Your task to perform on an android device: Show the shopping cart on costco.com. Search for razer kraken on costco.com, select the first entry, and add it to the cart. Image 0: 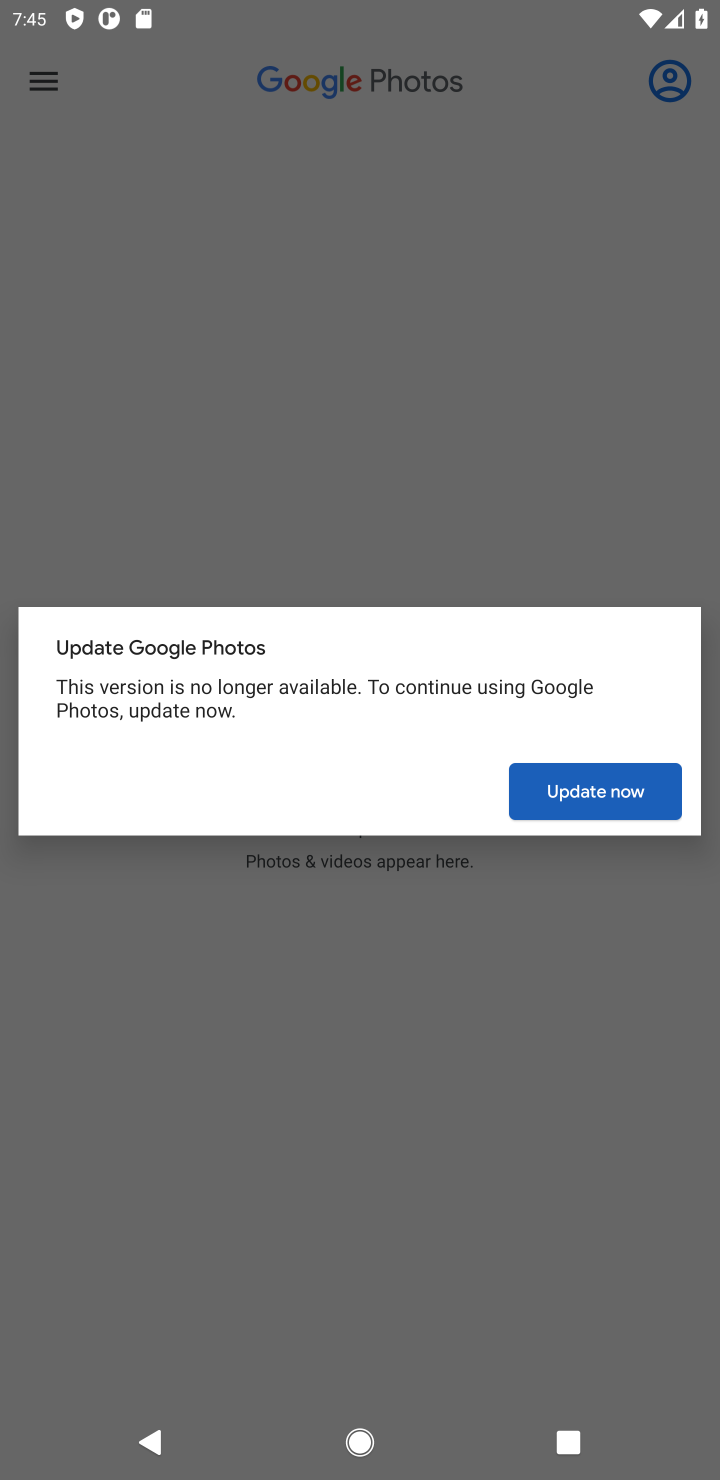
Step 0: press home button
Your task to perform on an android device: Show the shopping cart on costco.com. Search for razer kraken on costco.com, select the first entry, and add it to the cart. Image 1: 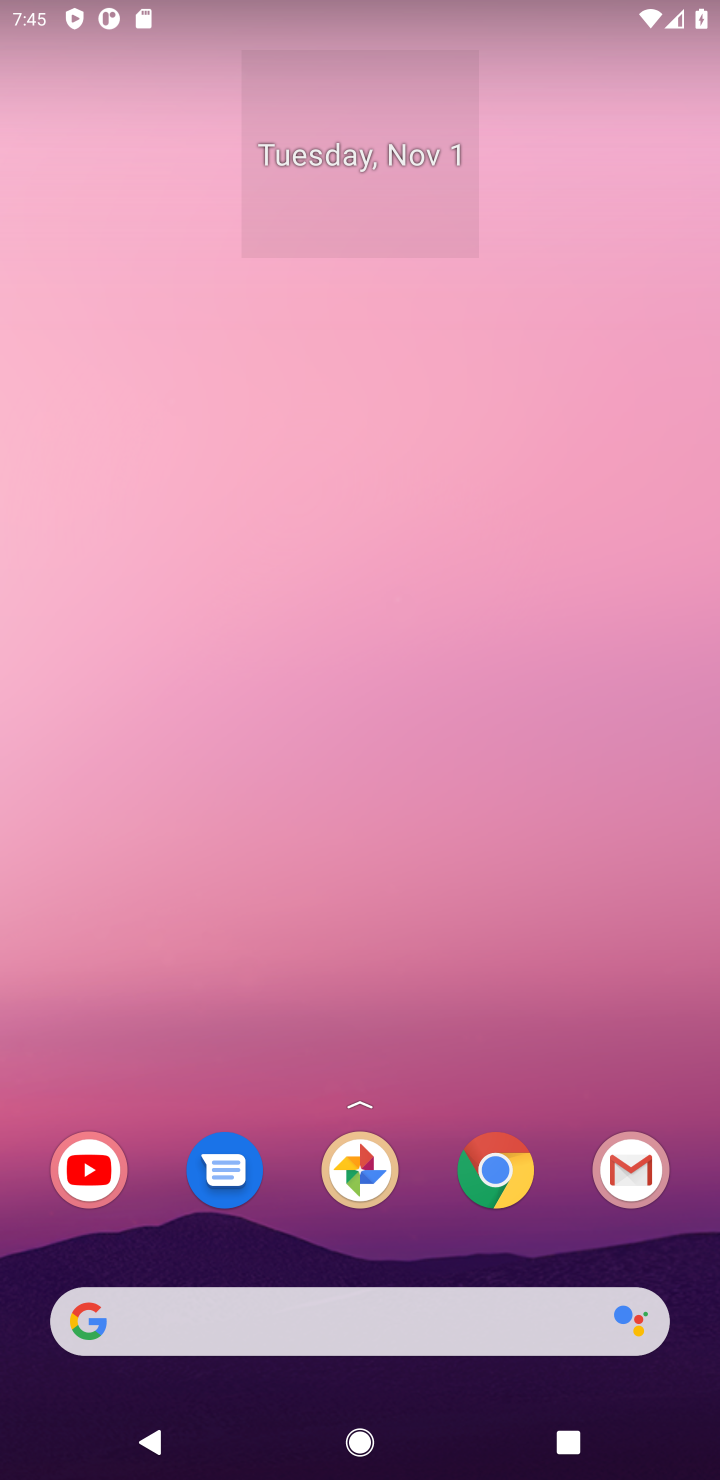
Step 1: click (502, 1194)
Your task to perform on an android device: Show the shopping cart on costco.com. Search for razer kraken on costco.com, select the first entry, and add it to the cart. Image 2: 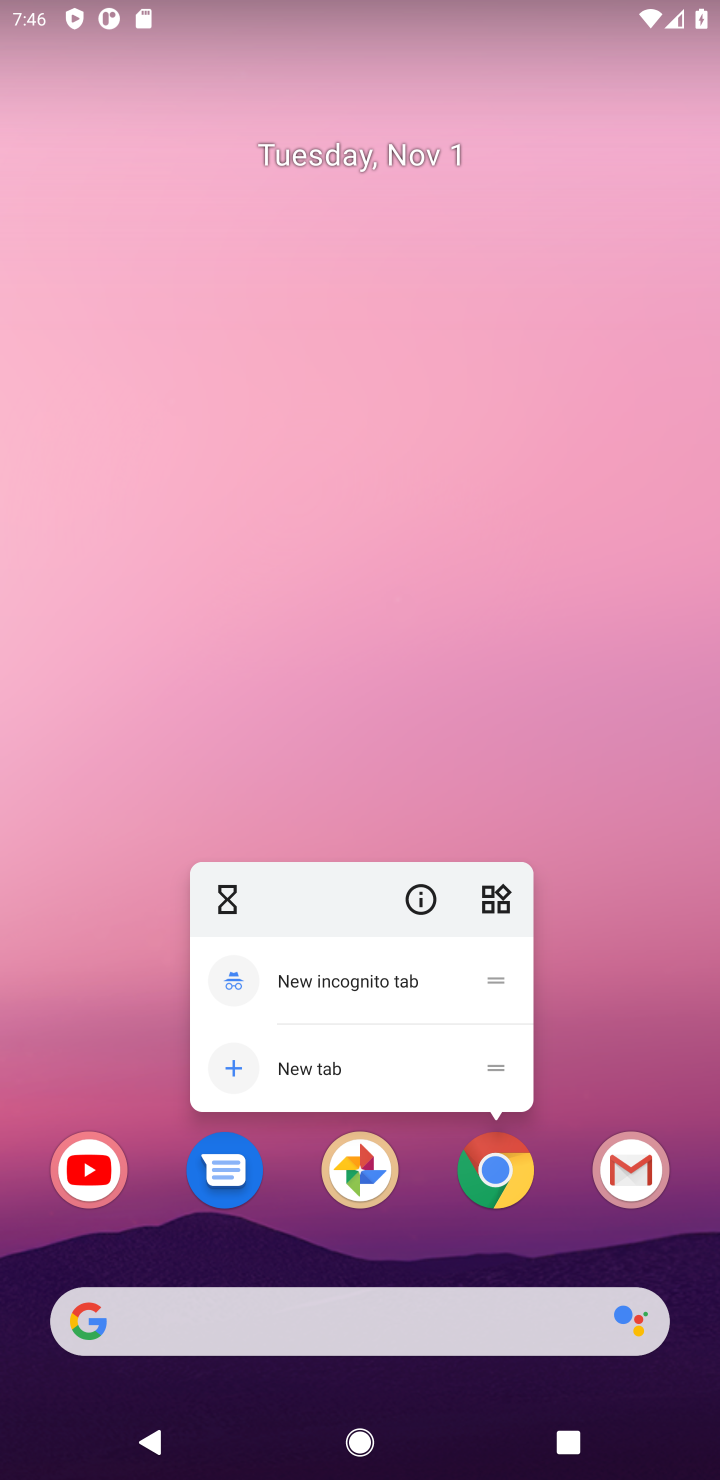
Step 2: click (506, 1179)
Your task to perform on an android device: Show the shopping cart on costco.com. Search for razer kraken on costco.com, select the first entry, and add it to the cart. Image 3: 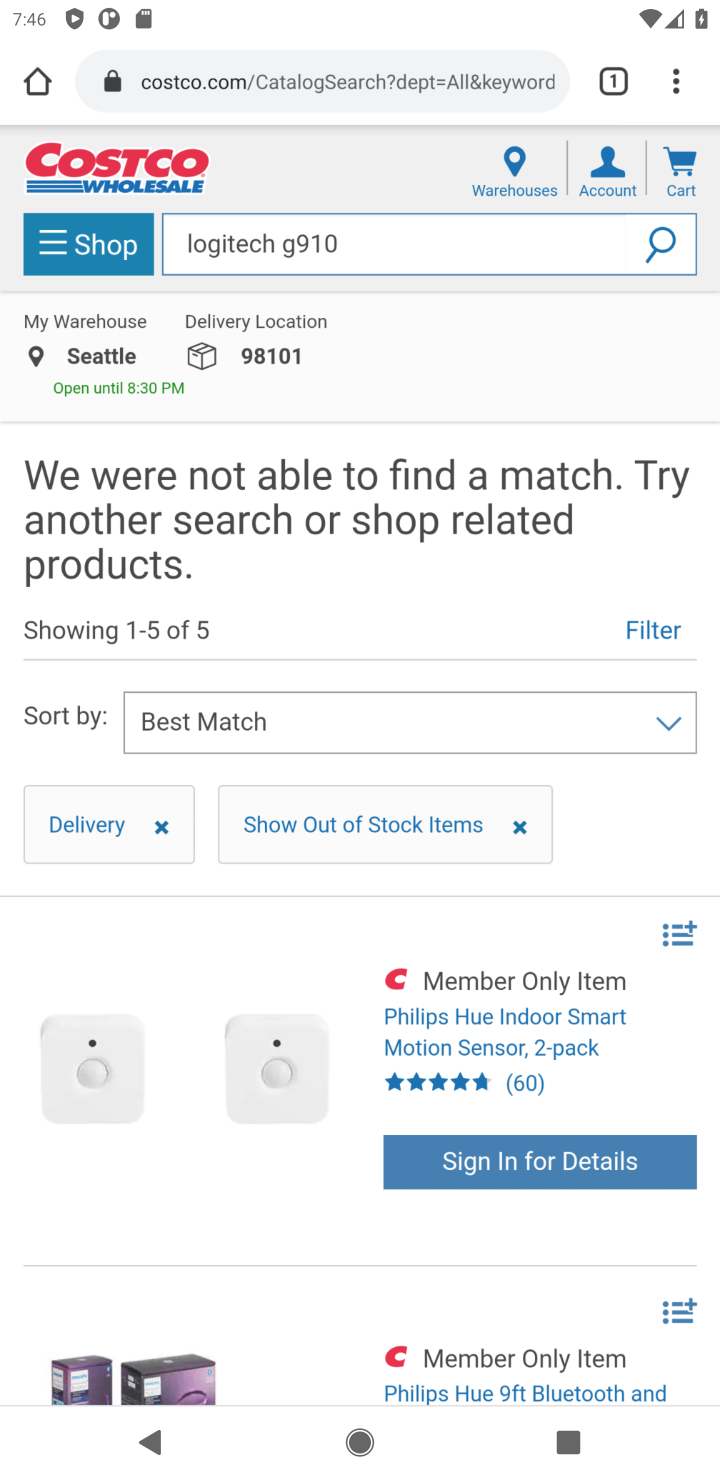
Step 3: click (506, 1179)
Your task to perform on an android device: Show the shopping cart on costco.com. Search for razer kraken on costco.com, select the first entry, and add it to the cart. Image 4: 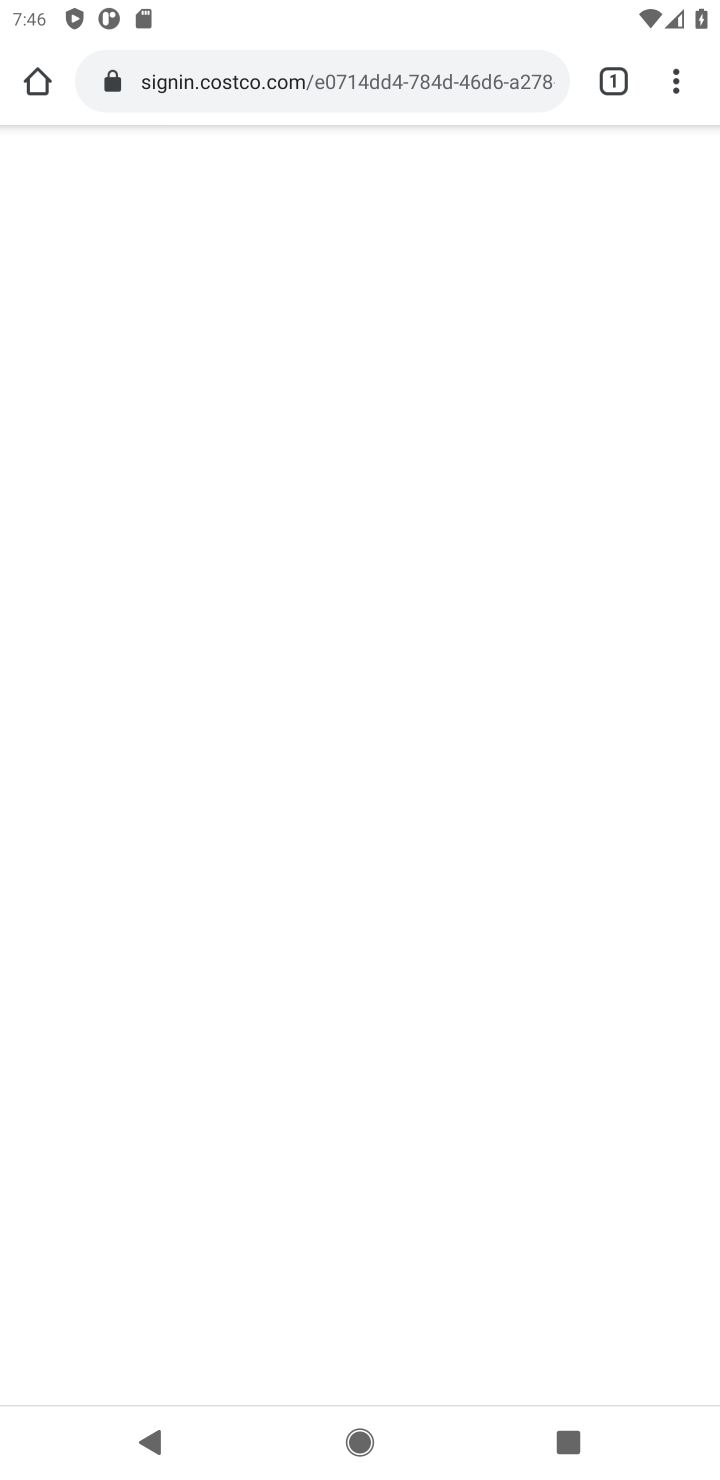
Step 4: click (417, 92)
Your task to perform on an android device: Show the shopping cart on costco.com. Search for razer kraken on costco.com, select the first entry, and add it to the cart. Image 5: 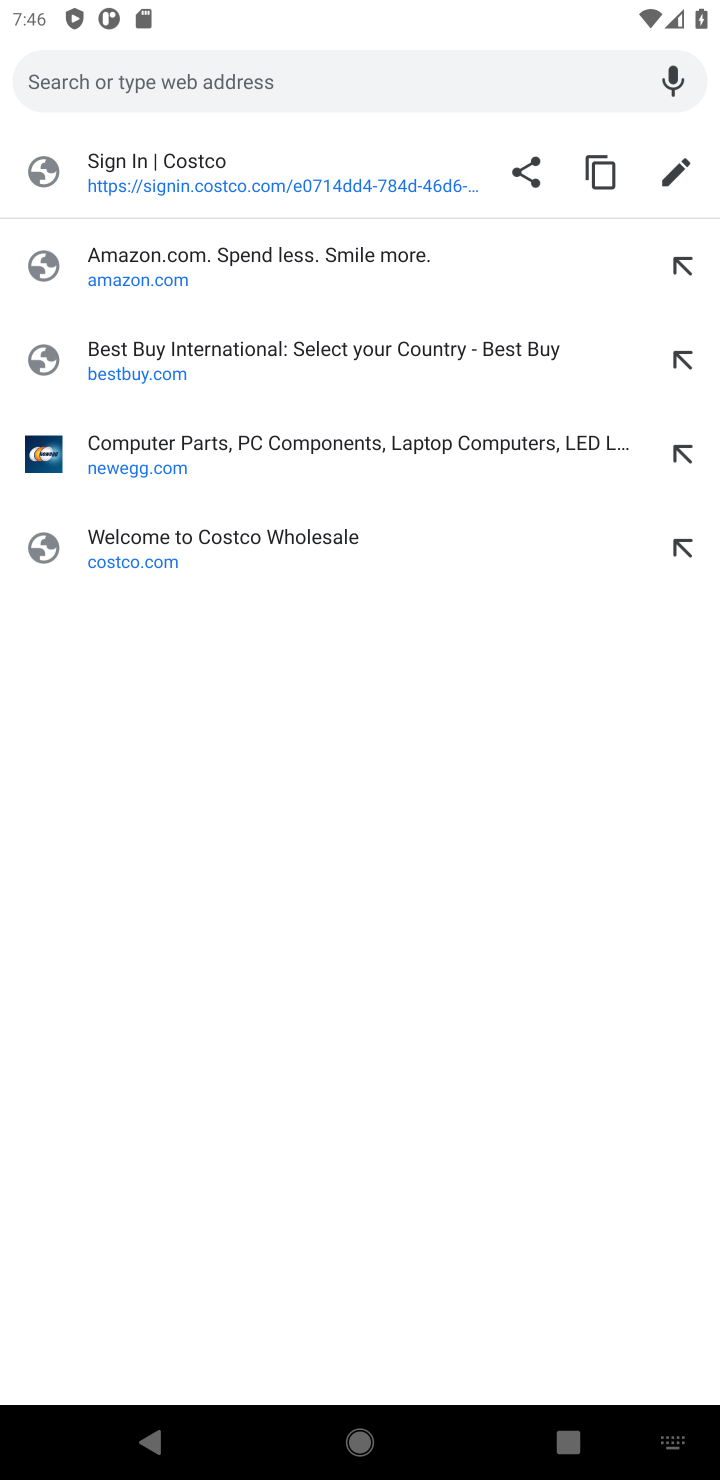
Step 5: type "costco.com"
Your task to perform on an android device: Show the shopping cart on costco.com. Search for razer kraken on costco.com, select the first entry, and add it to the cart. Image 6: 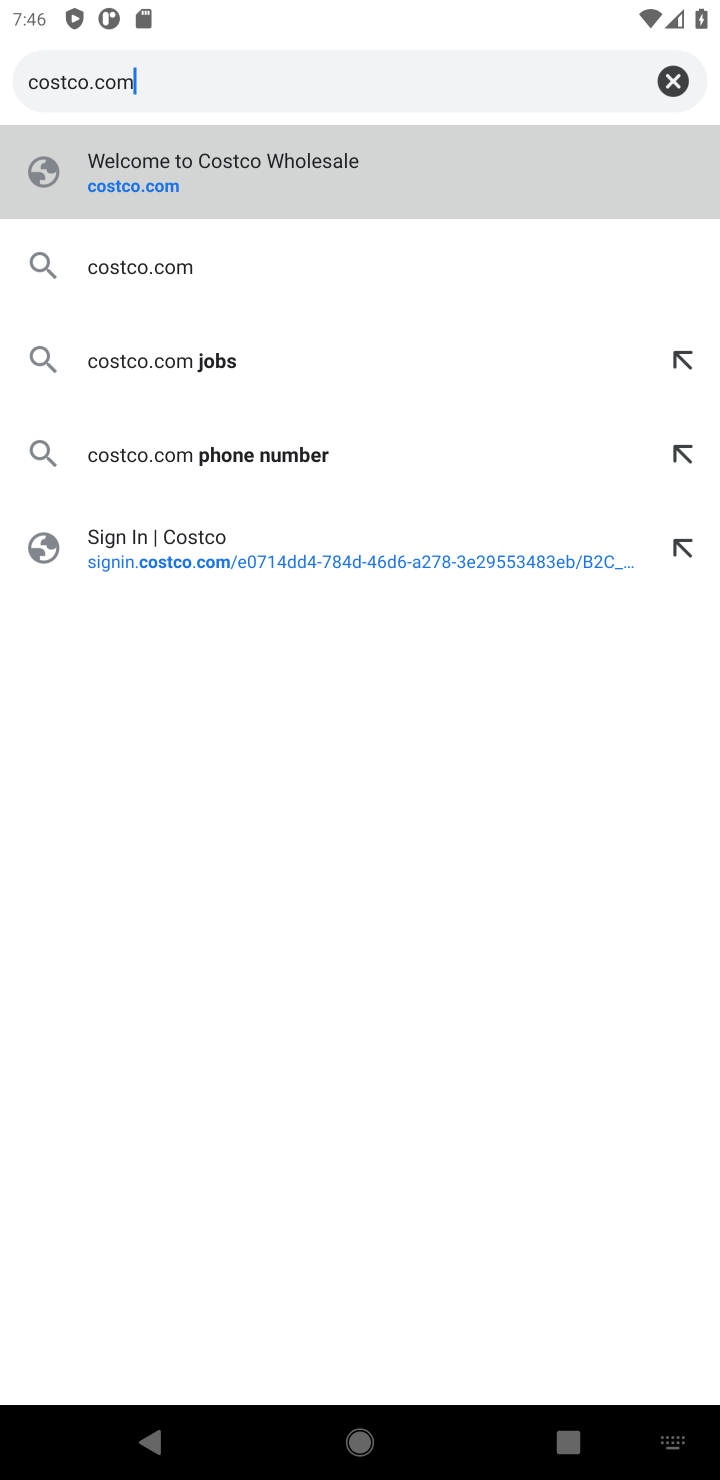
Step 6: press enter
Your task to perform on an android device: Show the shopping cart on costco.com. Search for razer kraken on costco.com, select the first entry, and add it to the cart. Image 7: 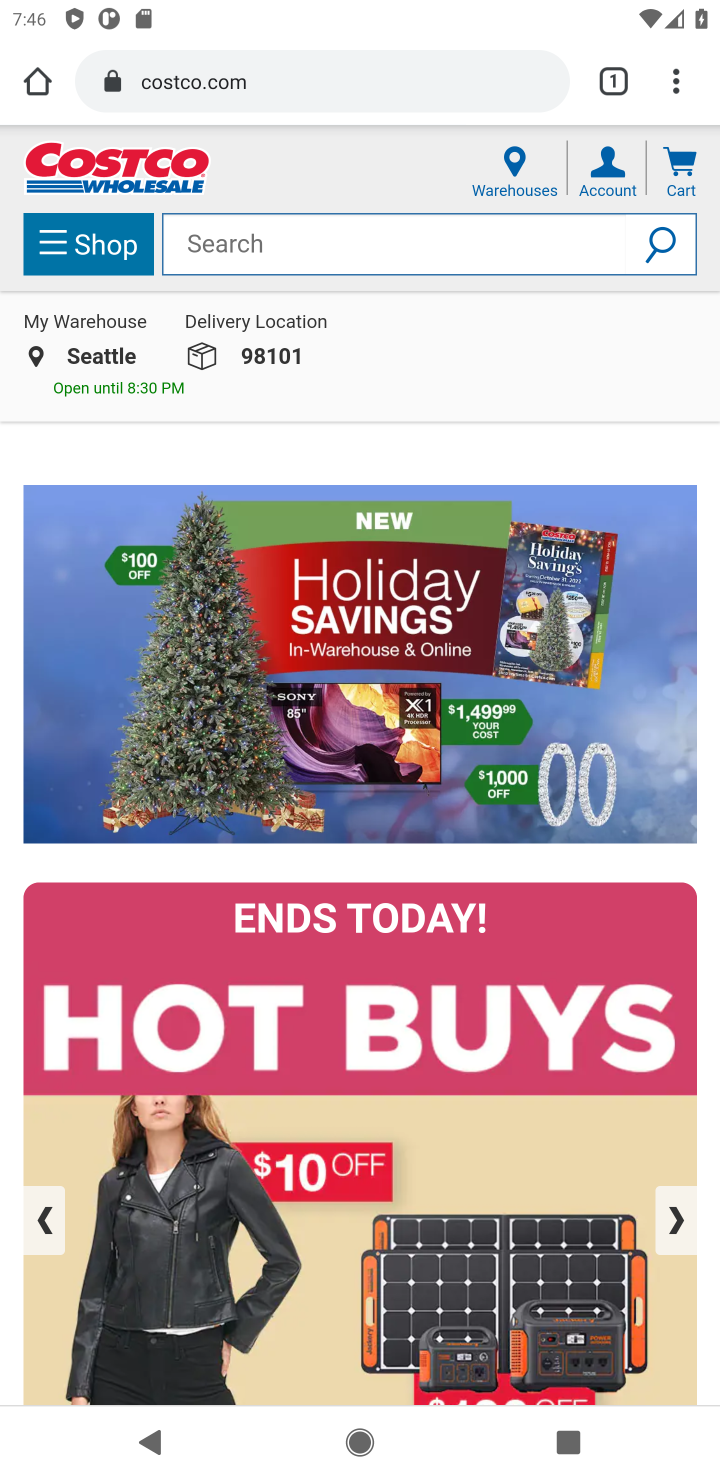
Step 7: click (697, 178)
Your task to perform on an android device: Show the shopping cart on costco.com. Search for razer kraken on costco.com, select the first entry, and add it to the cart. Image 8: 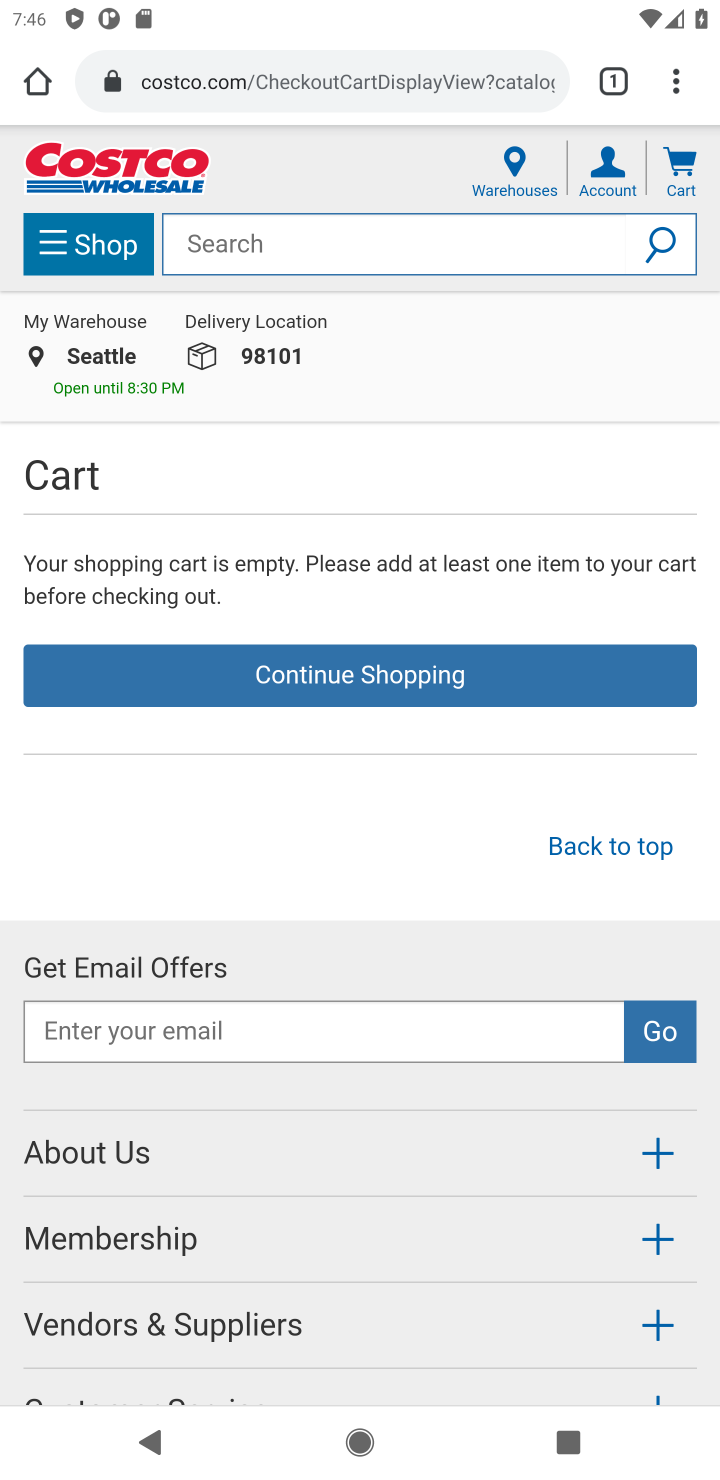
Step 8: click (697, 178)
Your task to perform on an android device: Show the shopping cart on costco.com. Search for razer kraken on costco.com, select the first entry, and add it to the cart. Image 9: 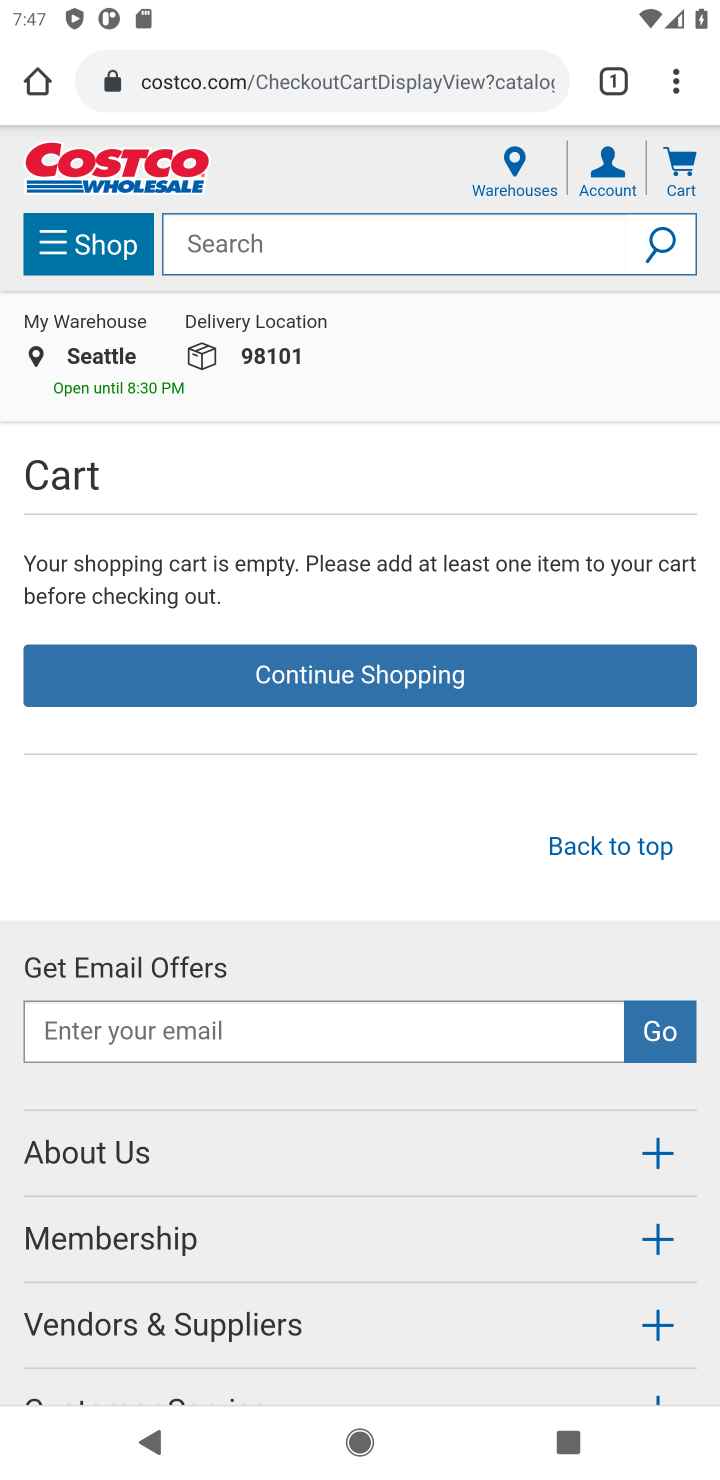
Step 9: click (360, 238)
Your task to perform on an android device: Show the shopping cart on costco.com. Search for razer kraken on costco.com, select the first entry, and add it to the cart. Image 10: 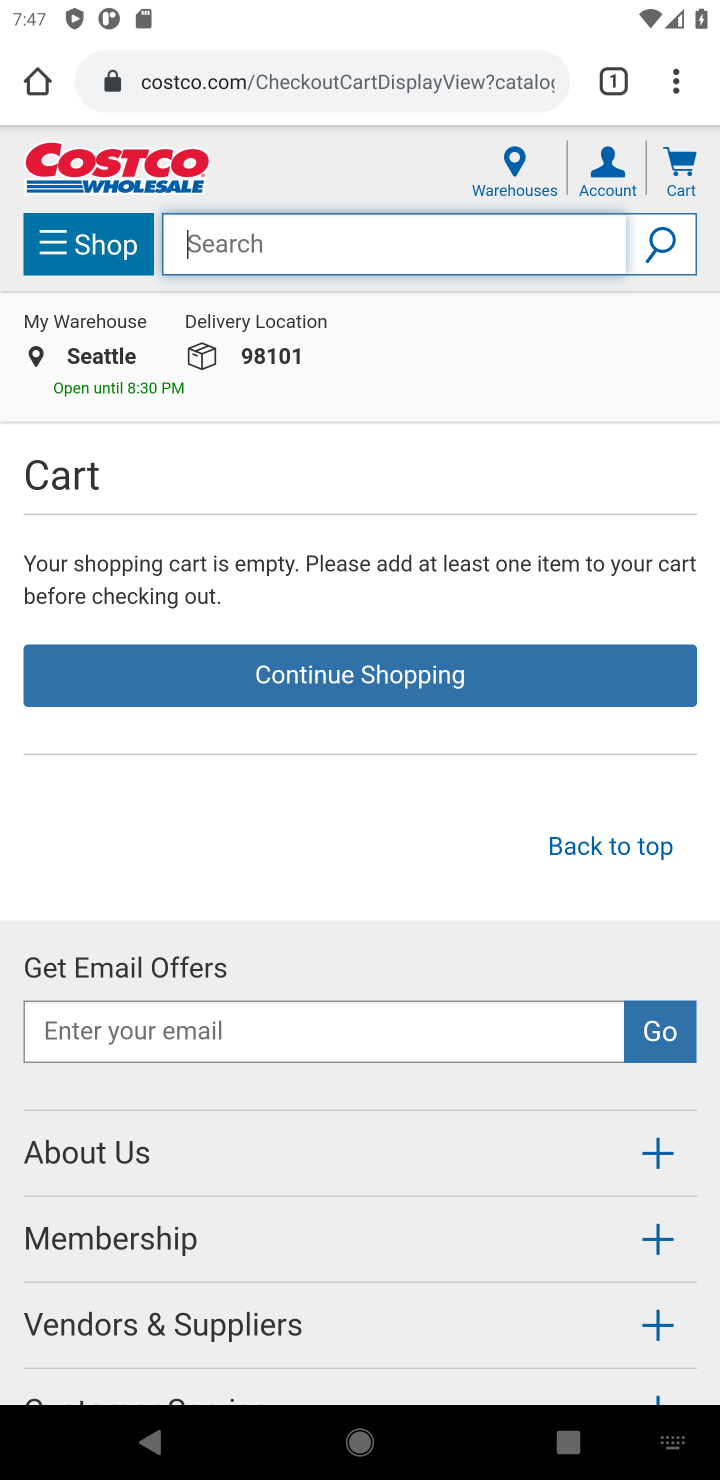
Step 10: click (390, 245)
Your task to perform on an android device: Show the shopping cart on costco.com. Search for razer kraken on costco.com, select the first entry, and add it to the cart. Image 11: 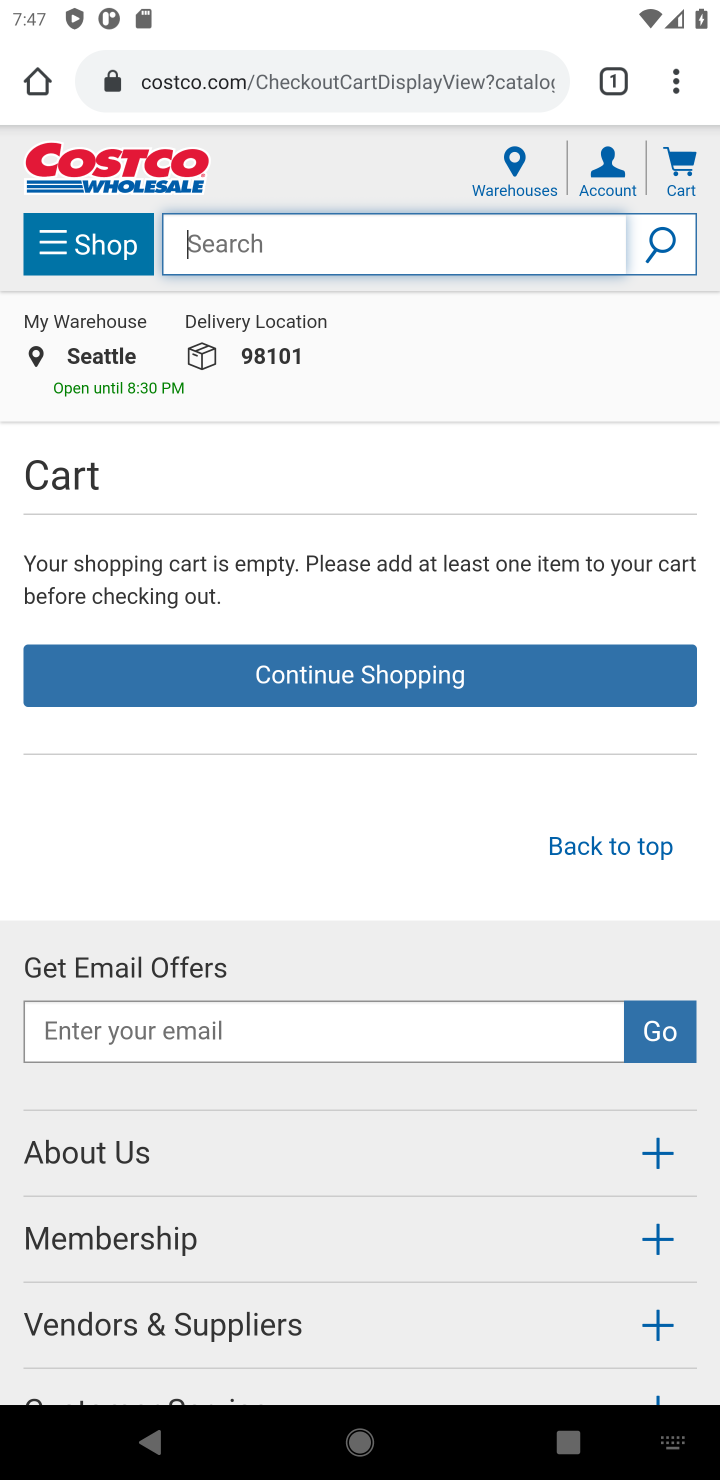
Step 11: type "razer kraken"
Your task to perform on an android device: Show the shopping cart on costco.com. Search for razer kraken on costco.com, select the first entry, and add it to the cart. Image 12: 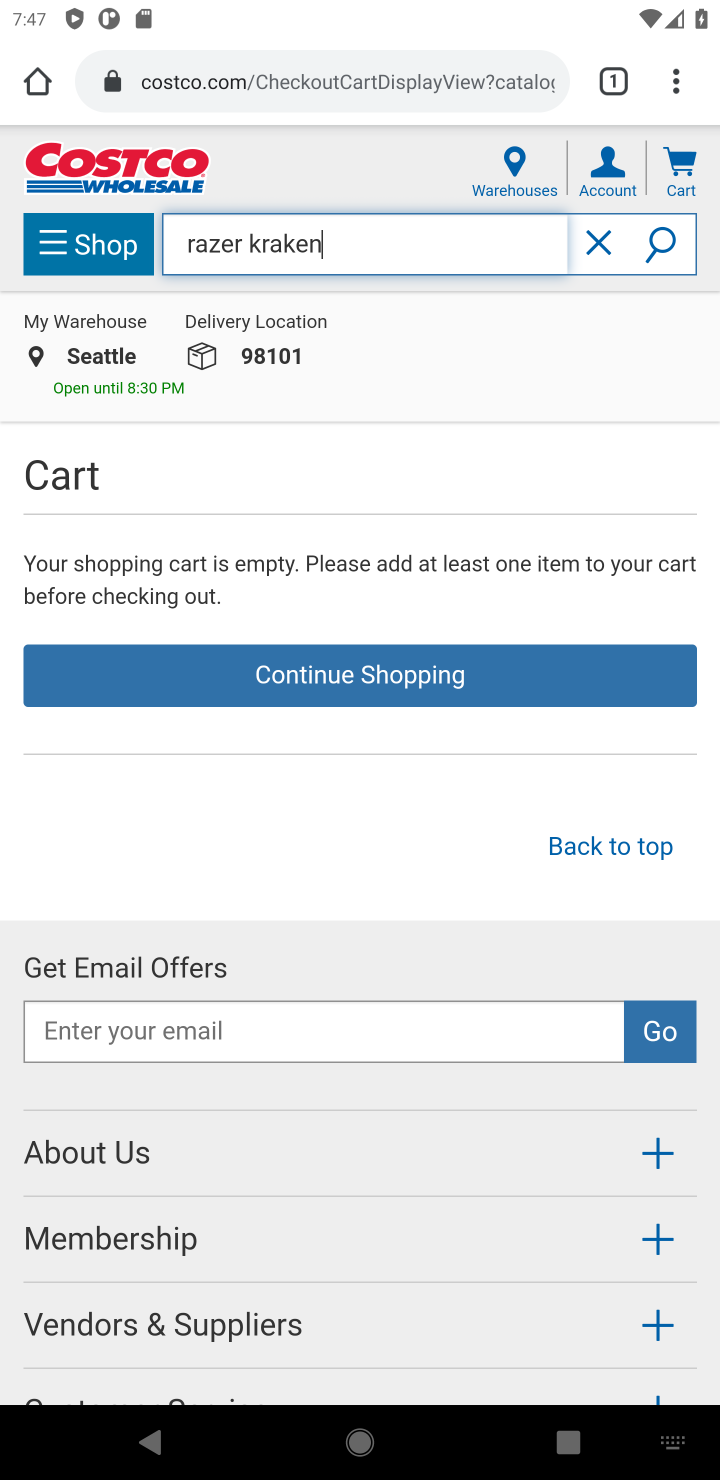
Step 12: type ""
Your task to perform on an android device: Show the shopping cart on costco.com. Search for razer kraken on costco.com, select the first entry, and add it to the cart. Image 13: 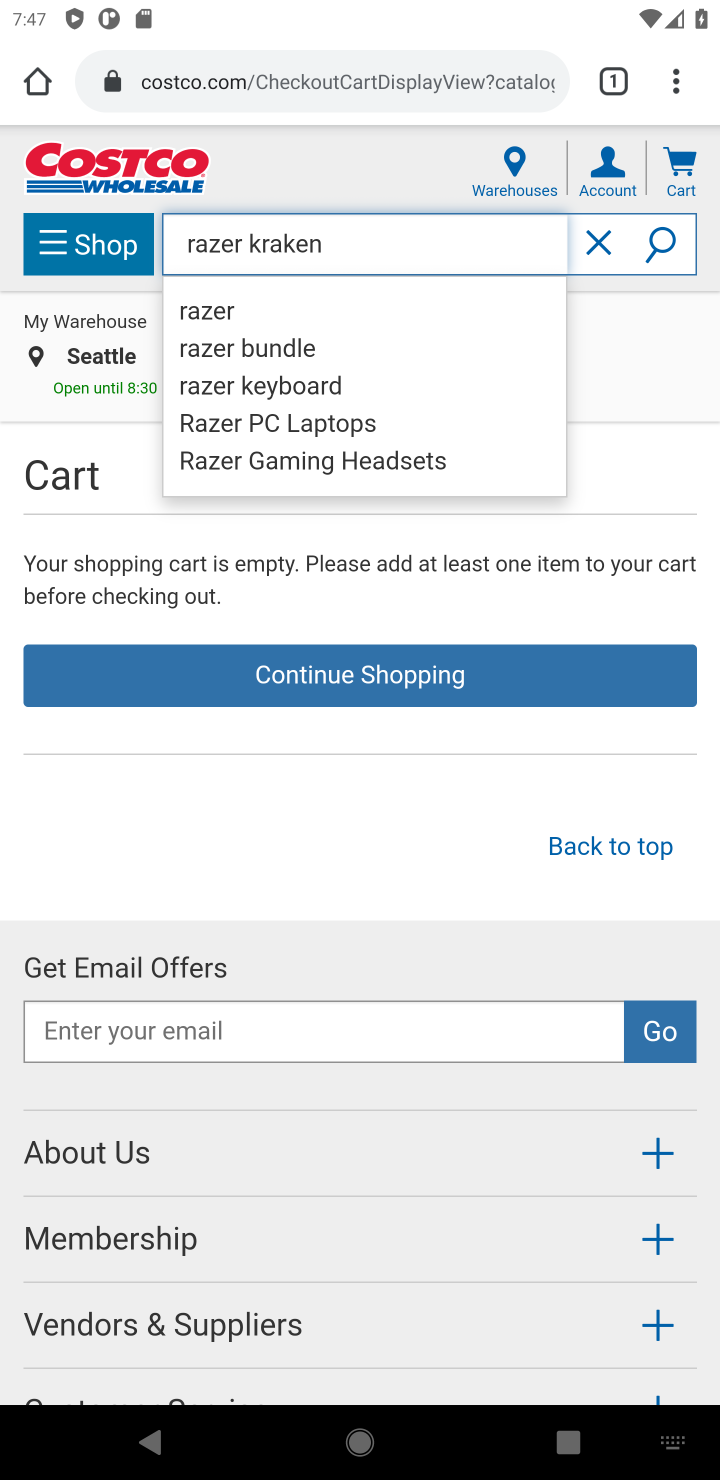
Step 13: press enter
Your task to perform on an android device: Show the shopping cart on costco.com. Search for razer kraken on costco.com, select the first entry, and add it to the cart. Image 14: 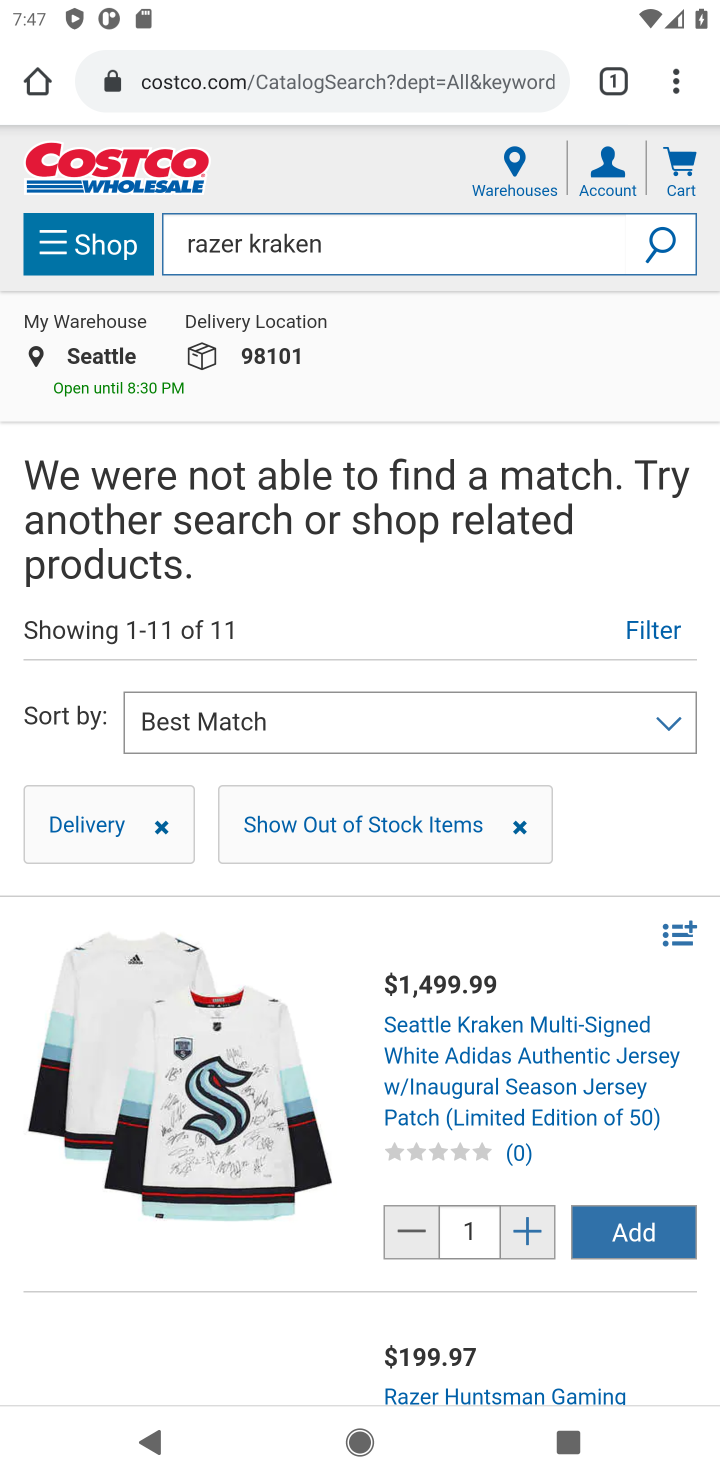
Step 14: press enter
Your task to perform on an android device: Show the shopping cart on costco.com. Search for razer kraken on costco.com, select the first entry, and add it to the cart. Image 15: 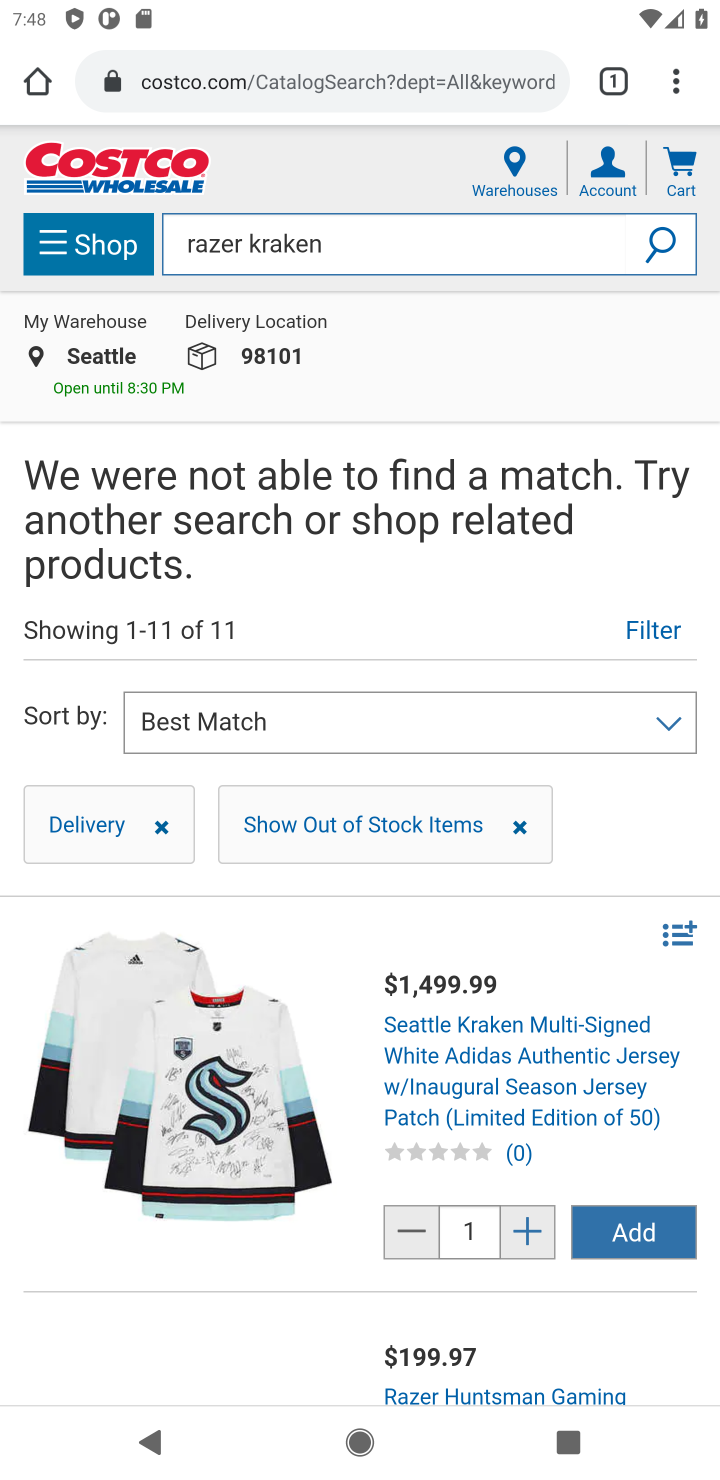
Step 15: task complete